Your task to perform on an android device: Set the phone to "Do not disturb". Image 0: 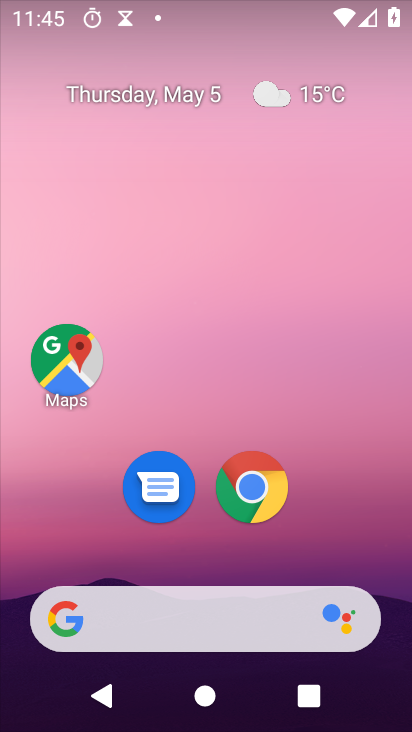
Step 0: drag from (369, 545) to (215, 40)
Your task to perform on an android device: Set the phone to "Do not disturb". Image 1: 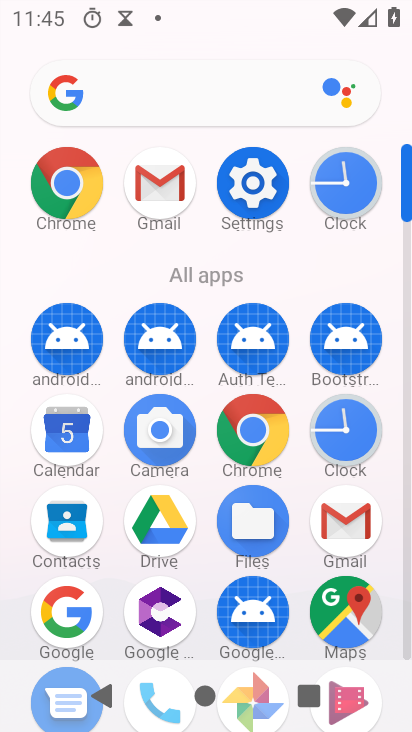
Step 1: click (255, 191)
Your task to perform on an android device: Set the phone to "Do not disturb". Image 2: 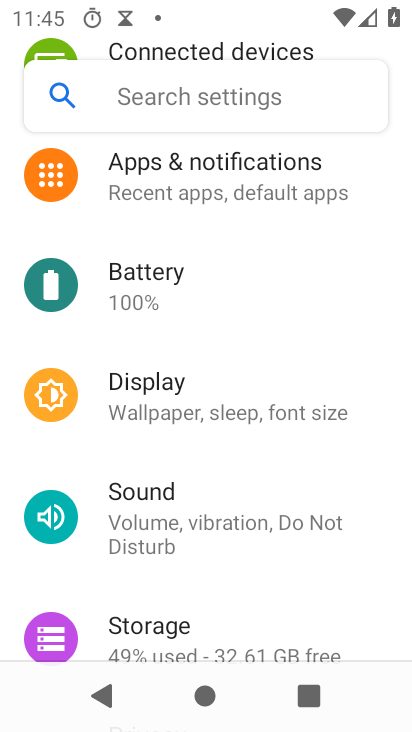
Step 2: click (166, 506)
Your task to perform on an android device: Set the phone to "Do not disturb". Image 3: 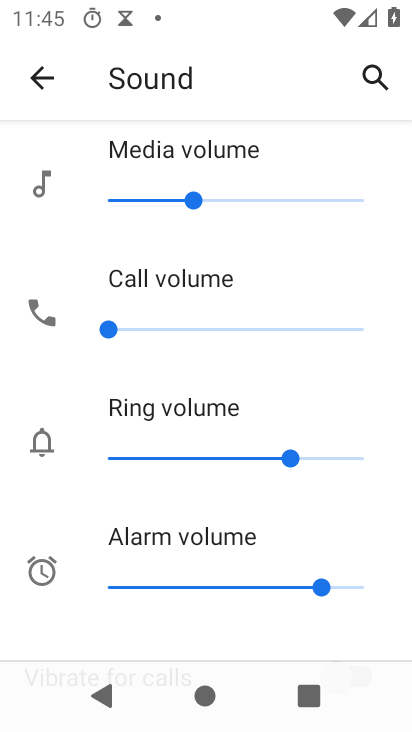
Step 3: drag from (201, 551) to (176, 111)
Your task to perform on an android device: Set the phone to "Do not disturb". Image 4: 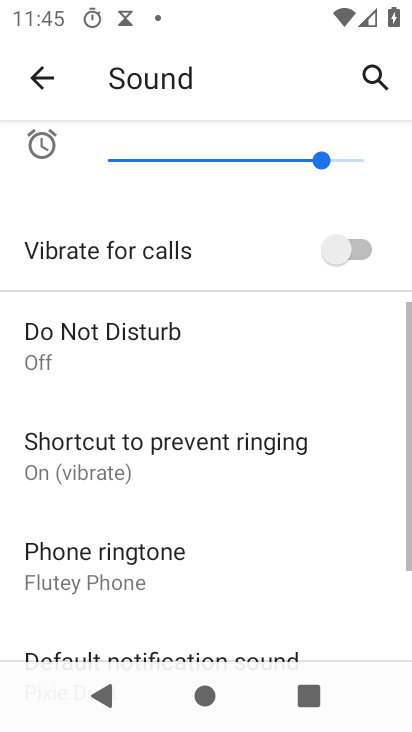
Step 4: drag from (205, 512) to (196, 34)
Your task to perform on an android device: Set the phone to "Do not disturb". Image 5: 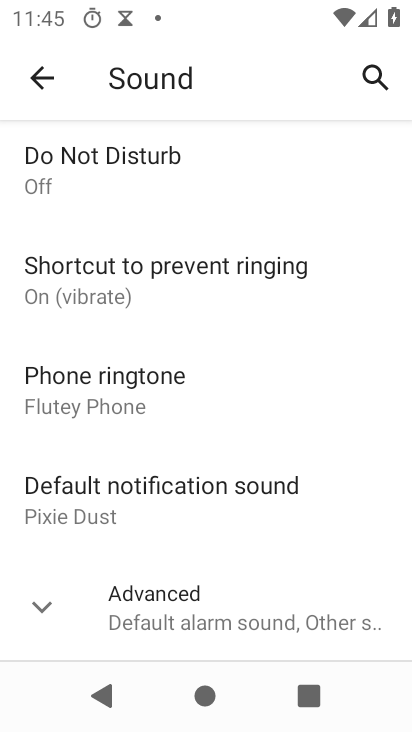
Step 5: click (108, 147)
Your task to perform on an android device: Set the phone to "Do not disturb". Image 6: 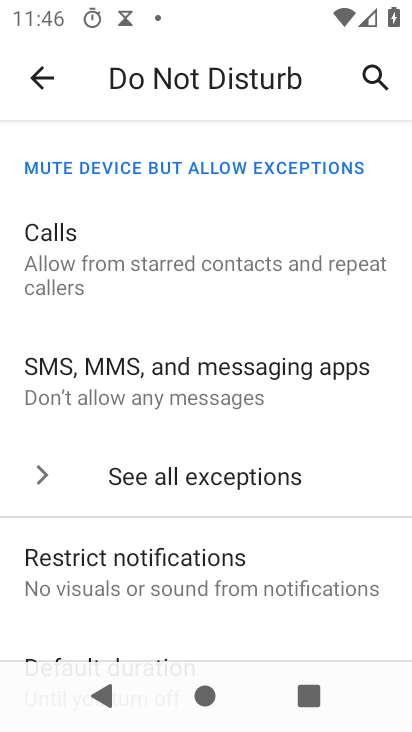
Step 6: drag from (242, 562) to (211, 175)
Your task to perform on an android device: Set the phone to "Do not disturb". Image 7: 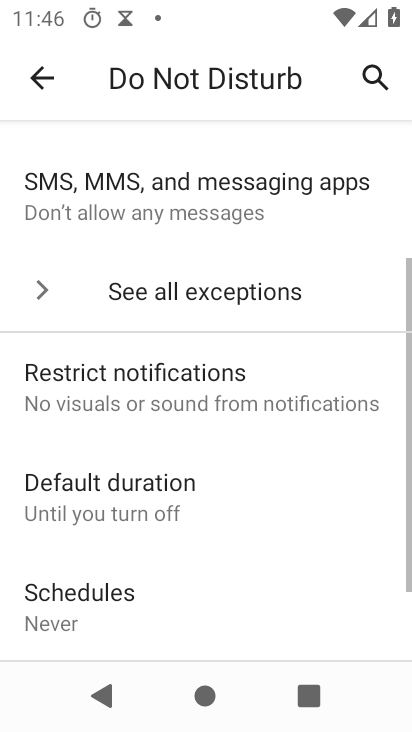
Step 7: drag from (266, 465) to (254, 98)
Your task to perform on an android device: Set the phone to "Do not disturb". Image 8: 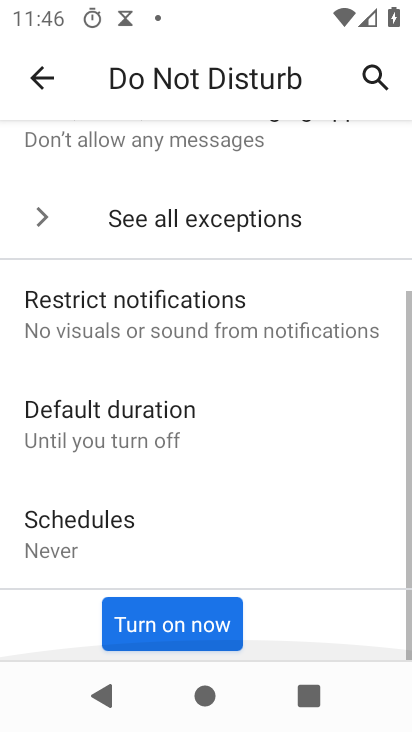
Step 8: drag from (214, 562) to (205, 311)
Your task to perform on an android device: Set the phone to "Do not disturb". Image 9: 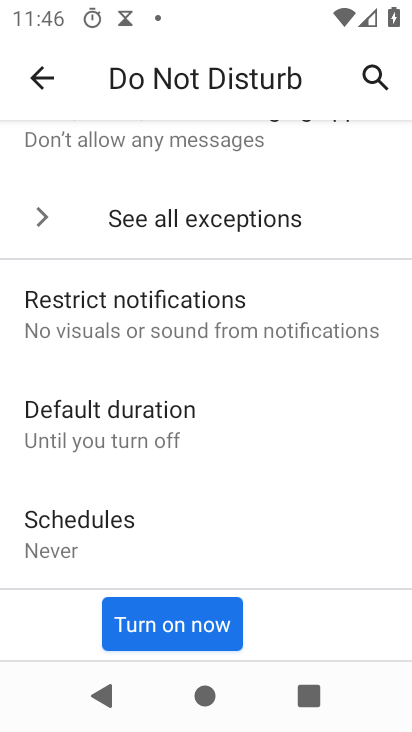
Step 9: click (179, 622)
Your task to perform on an android device: Set the phone to "Do not disturb". Image 10: 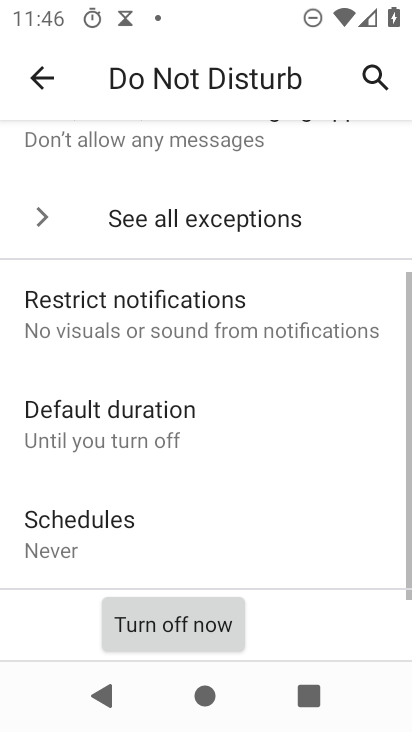
Step 10: task complete